Your task to perform on an android device: Search for sushi restaurants on Maps Image 0: 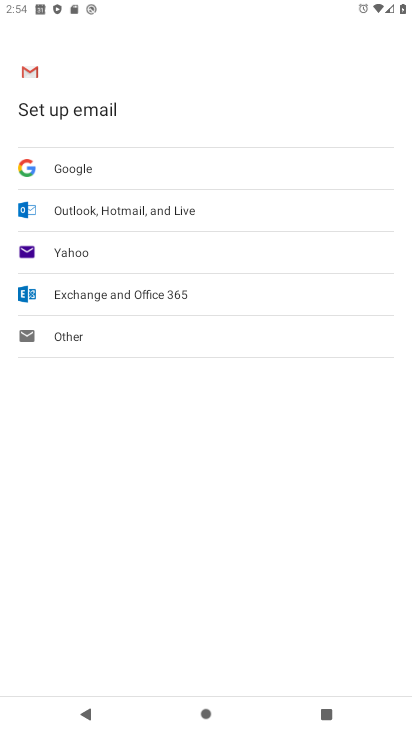
Step 0: press home button
Your task to perform on an android device: Search for sushi restaurants on Maps Image 1: 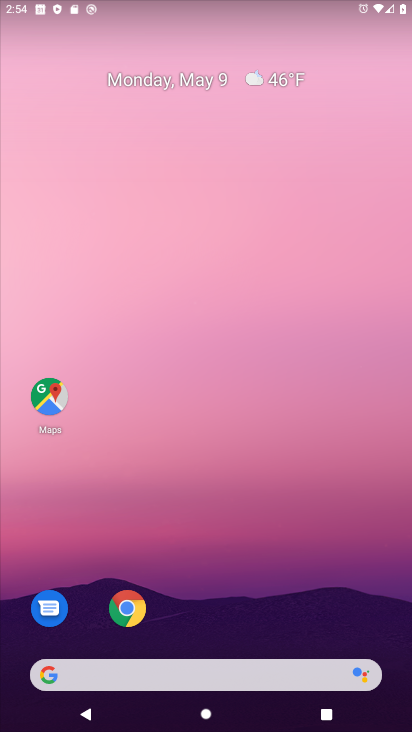
Step 1: click (40, 396)
Your task to perform on an android device: Search for sushi restaurants on Maps Image 2: 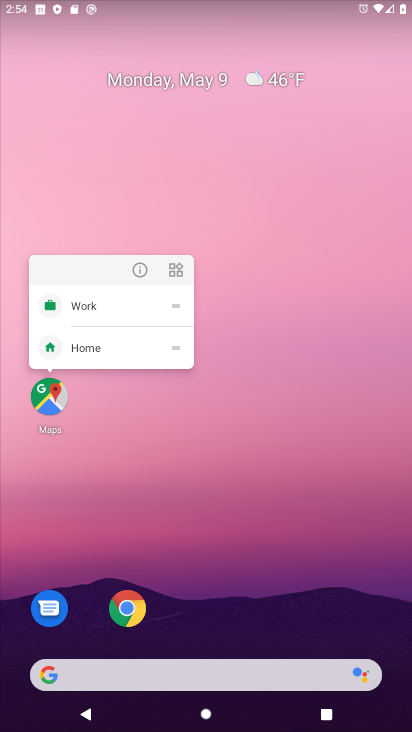
Step 2: click (137, 267)
Your task to perform on an android device: Search for sushi restaurants on Maps Image 3: 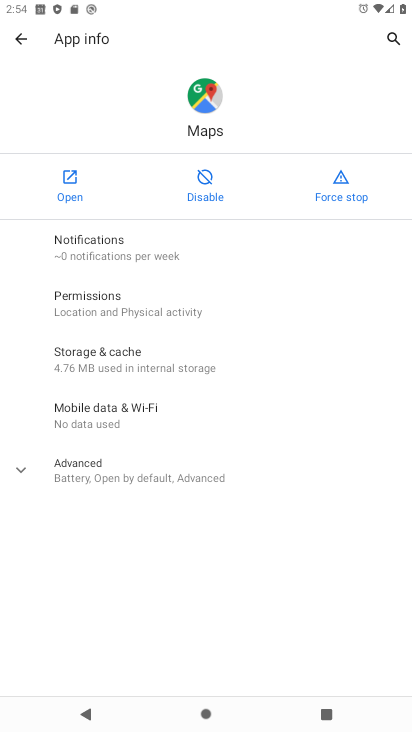
Step 3: click (68, 201)
Your task to perform on an android device: Search for sushi restaurants on Maps Image 4: 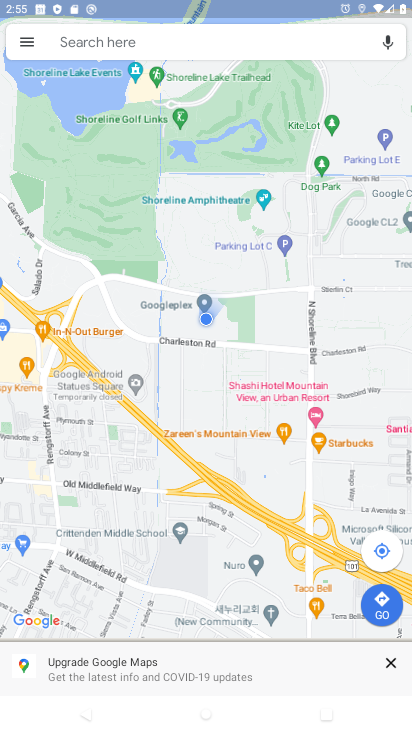
Step 4: click (93, 48)
Your task to perform on an android device: Search for sushi restaurants on Maps Image 5: 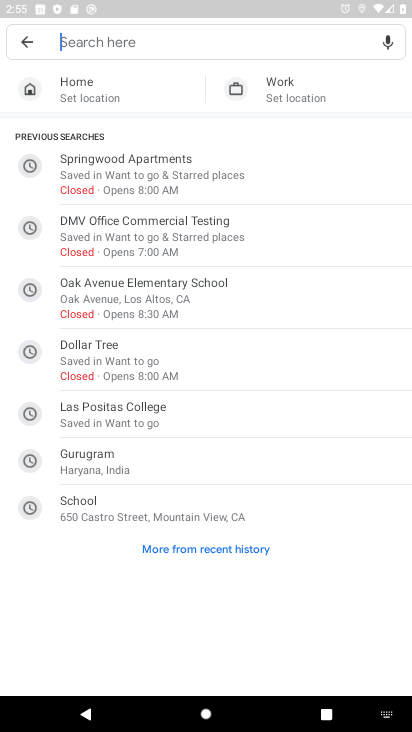
Step 5: type "sushi restaurants"
Your task to perform on an android device: Search for sushi restaurants on Maps Image 6: 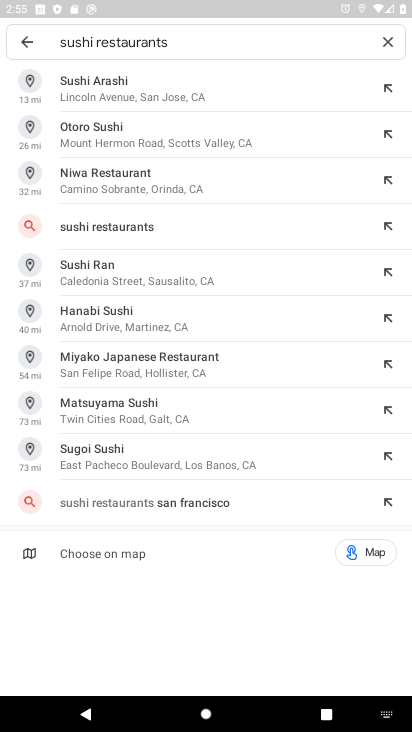
Step 6: click (136, 221)
Your task to perform on an android device: Search for sushi restaurants on Maps Image 7: 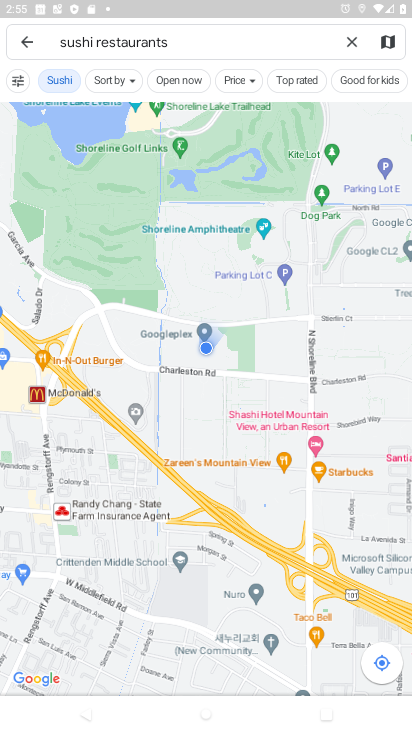
Step 7: task complete